Your task to perform on an android device: Search for a new lawnmower on home depot Image 0: 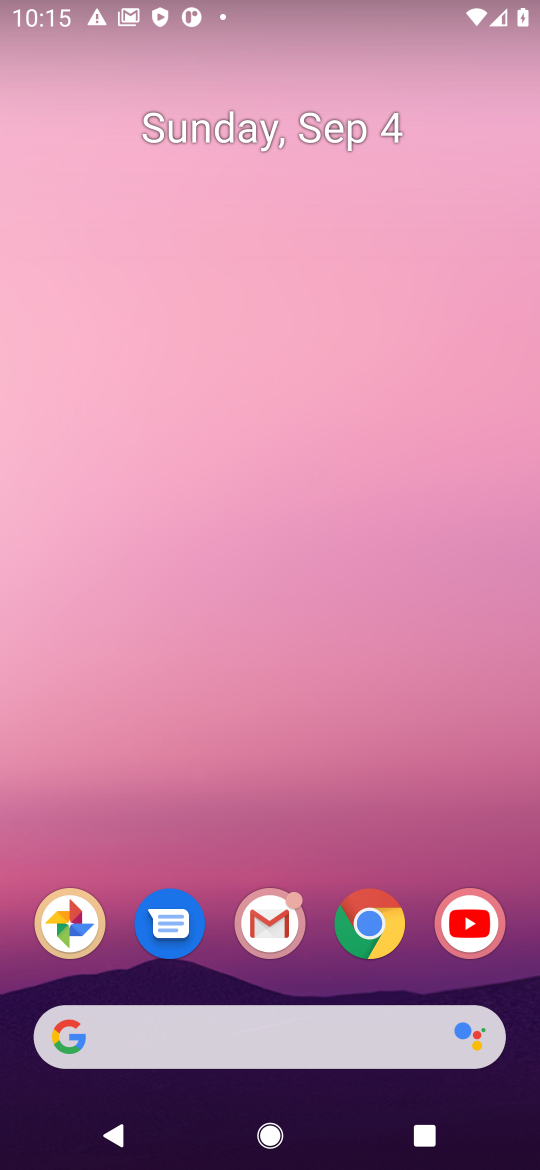
Step 0: click (308, 1028)
Your task to perform on an android device: Search for a new lawnmower on home depot Image 1: 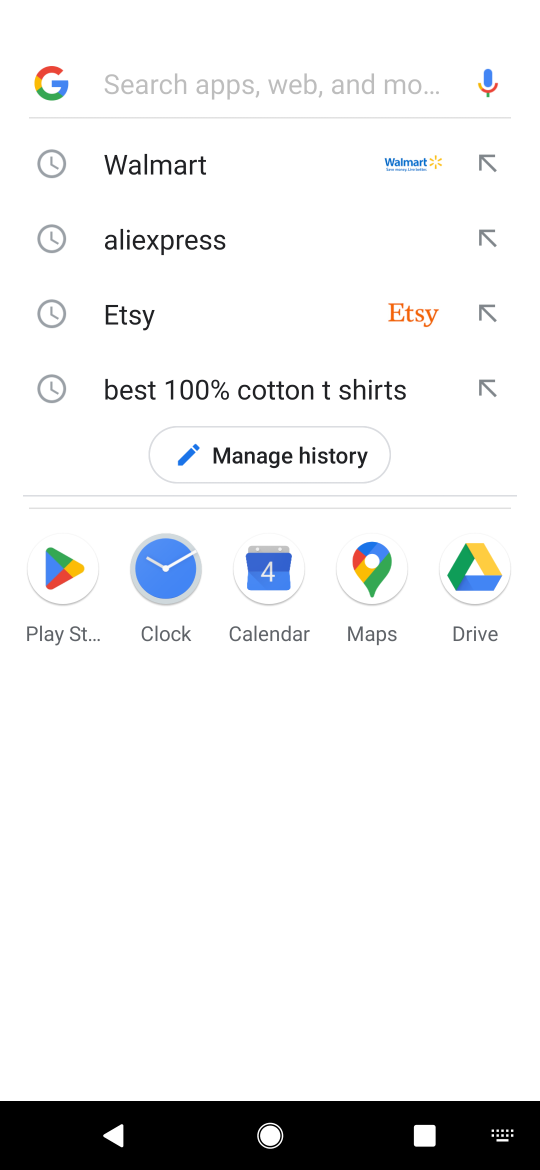
Step 1: press enter
Your task to perform on an android device: Search for a new lawnmower on home depot Image 2: 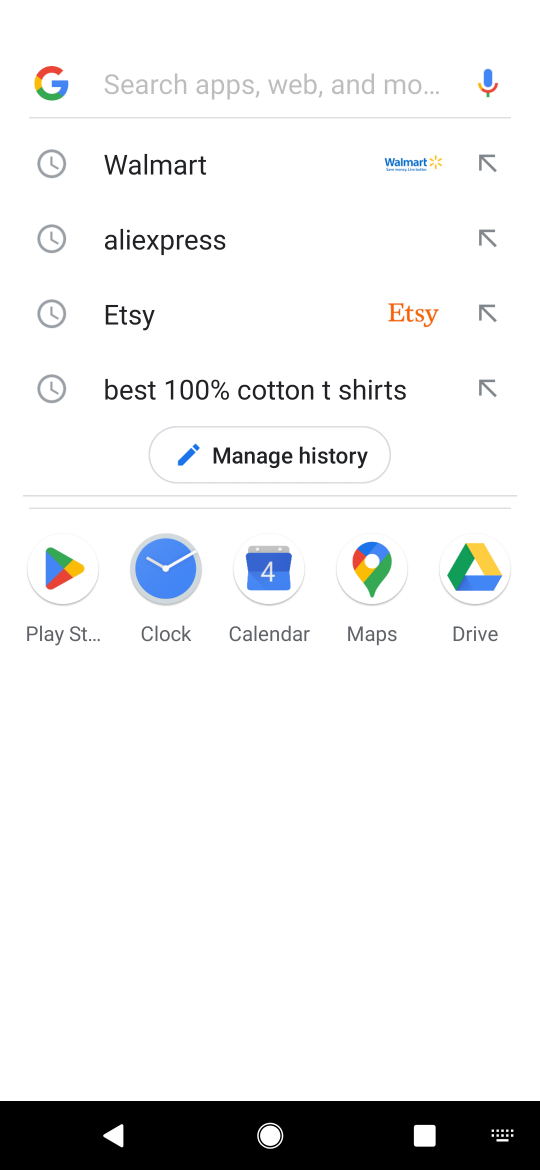
Step 2: type "home depot"
Your task to perform on an android device: Search for a new lawnmower on home depot Image 3: 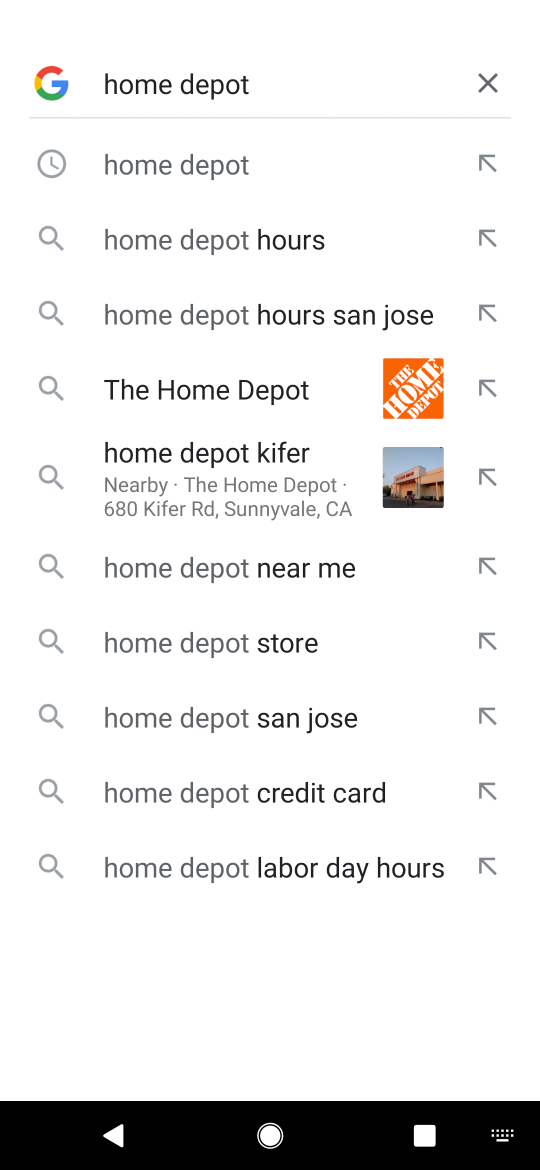
Step 3: click (211, 166)
Your task to perform on an android device: Search for a new lawnmower on home depot Image 4: 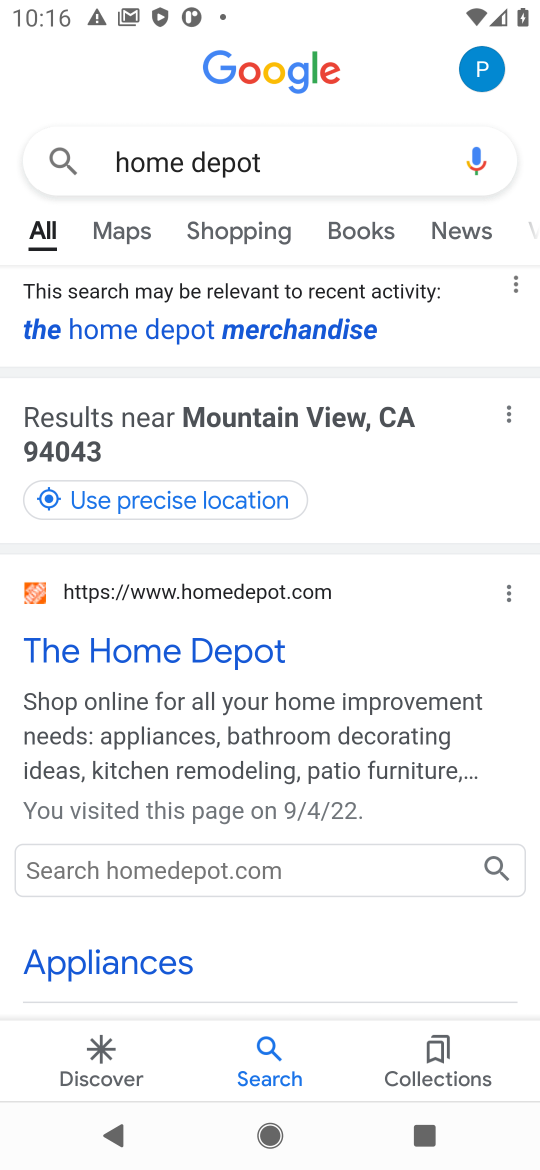
Step 4: click (180, 644)
Your task to perform on an android device: Search for a new lawnmower on home depot Image 5: 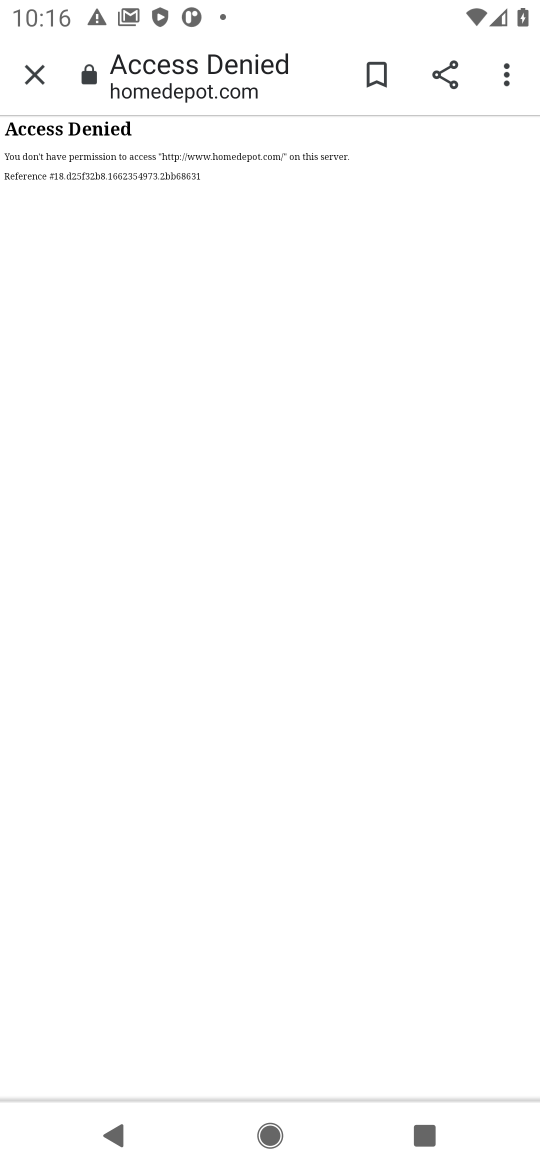
Step 5: task complete